Your task to perform on an android device: Open the phone app and click the voicemail tab. Image 0: 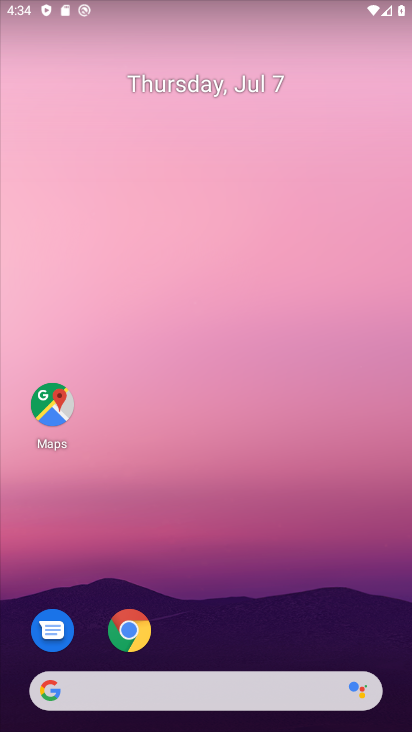
Step 0: drag from (200, 676) to (182, 175)
Your task to perform on an android device: Open the phone app and click the voicemail tab. Image 1: 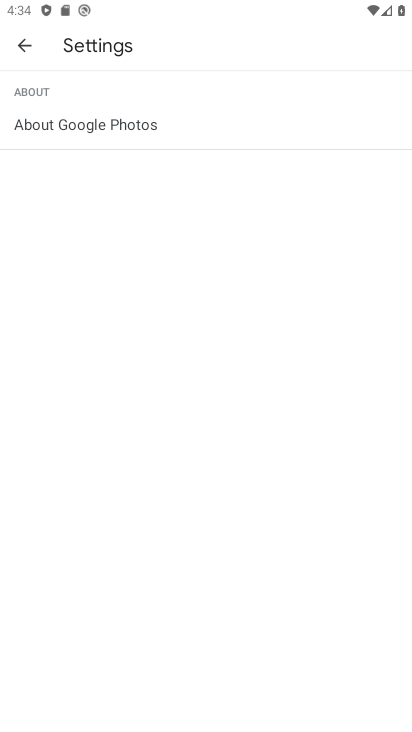
Step 1: click (20, 42)
Your task to perform on an android device: Open the phone app and click the voicemail tab. Image 2: 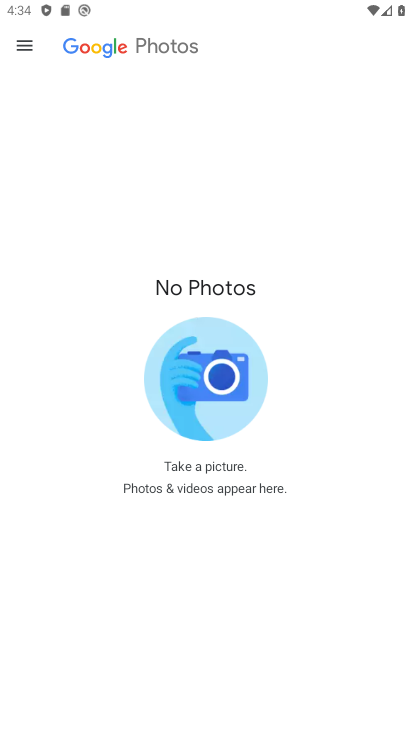
Step 2: press back button
Your task to perform on an android device: Open the phone app and click the voicemail tab. Image 3: 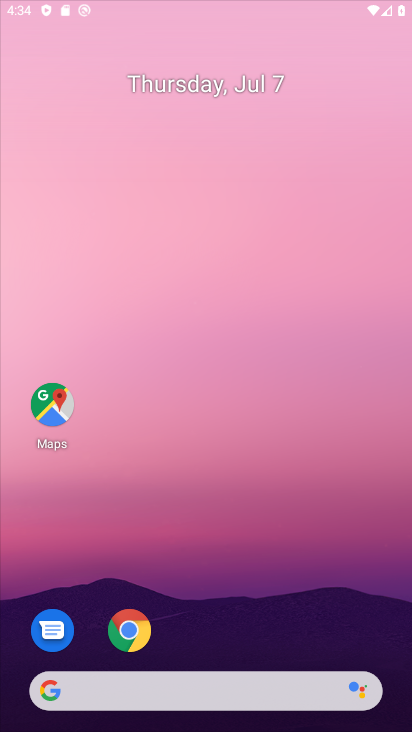
Step 3: drag from (277, 576) to (171, 0)
Your task to perform on an android device: Open the phone app and click the voicemail tab. Image 4: 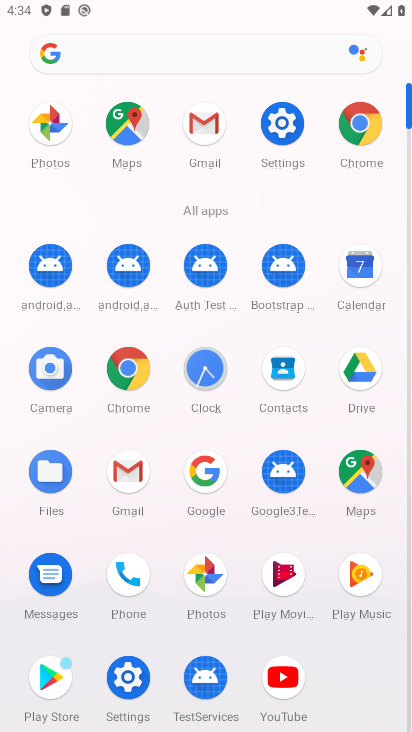
Step 4: click (142, 572)
Your task to perform on an android device: Open the phone app and click the voicemail tab. Image 5: 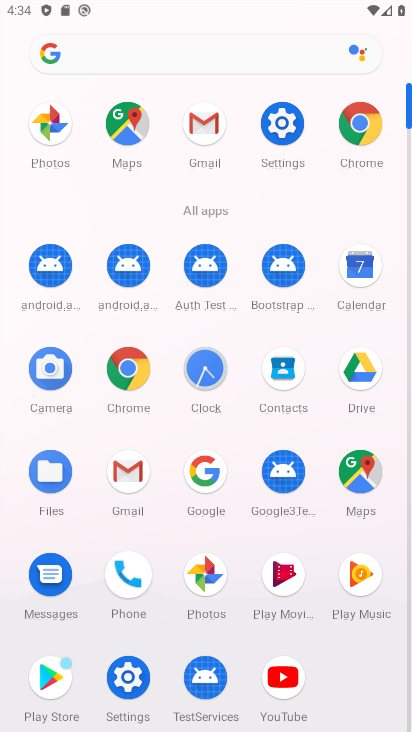
Step 5: click (133, 567)
Your task to perform on an android device: Open the phone app and click the voicemail tab. Image 6: 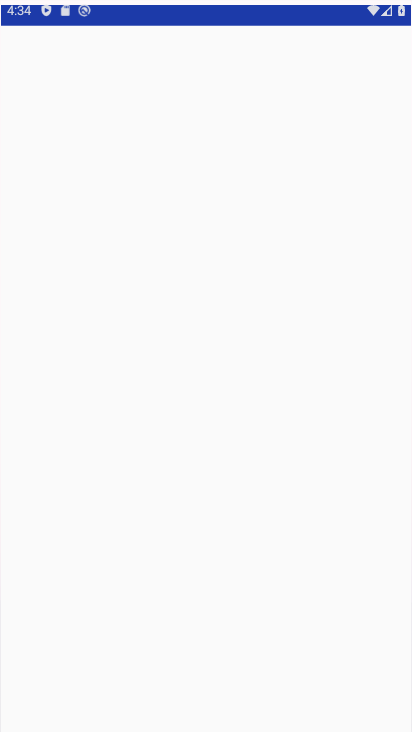
Step 6: click (133, 567)
Your task to perform on an android device: Open the phone app and click the voicemail tab. Image 7: 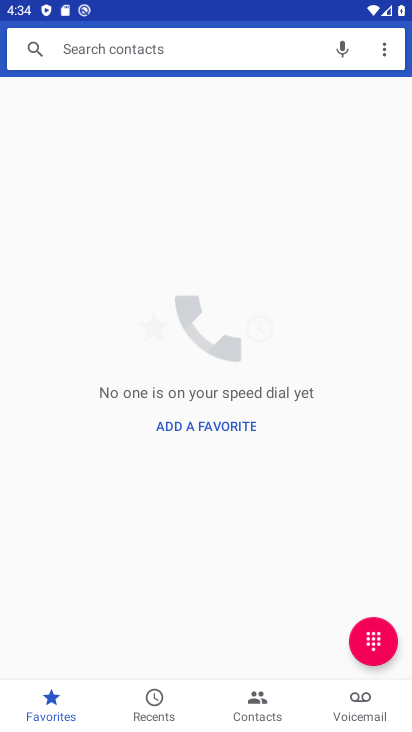
Step 7: click (368, 706)
Your task to perform on an android device: Open the phone app and click the voicemail tab. Image 8: 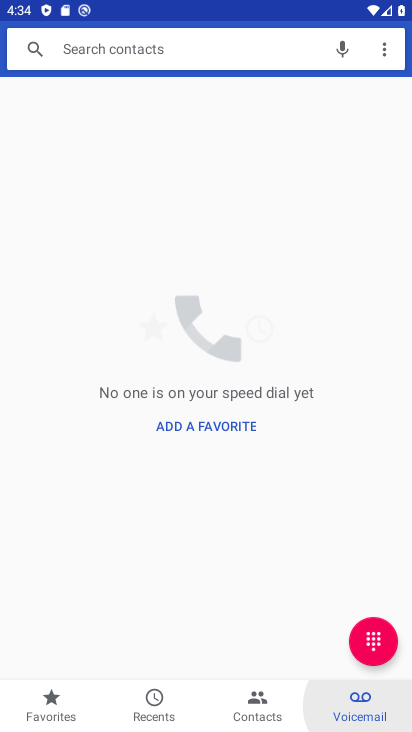
Step 8: click (366, 708)
Your task to perform on an android device: Open the phone app and click the voicemail tab. Image 9: 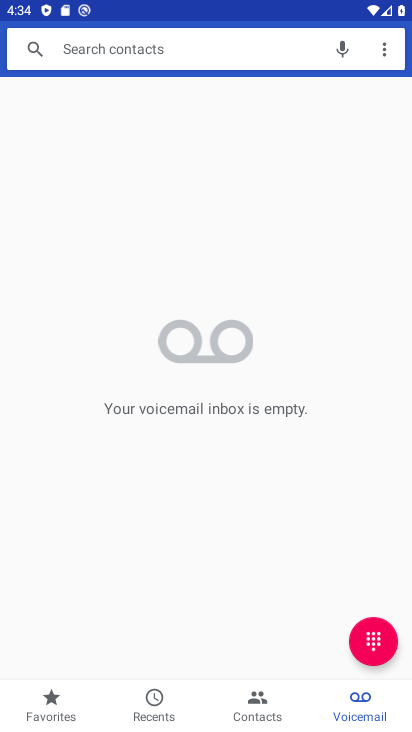
Step 9: click (371, 695)
Your task to perform on an android device: Open the phone app and click the voicemail tab. Image 10: 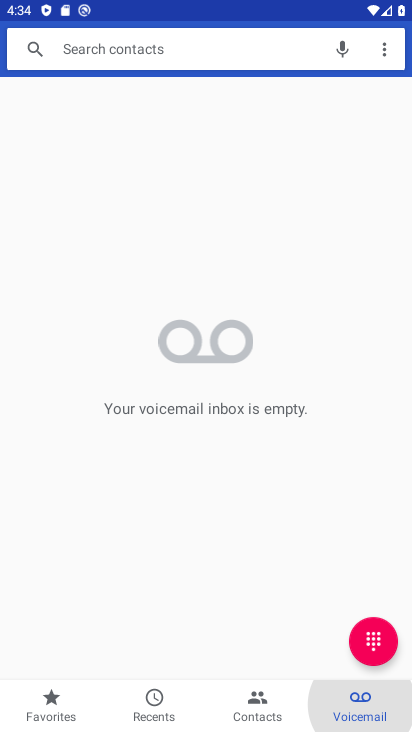
Step 10: click (370, 695)
Your task to perform on an android device: Open the phone app and click the voicemail tab. Image 11: 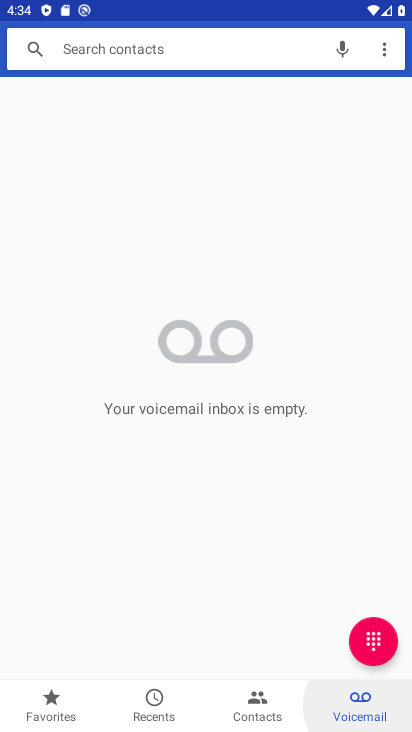
Step 11: click (369, 695)
Your task to perform on an android device: Open the phone app and click the voicemail tab. Image 12: 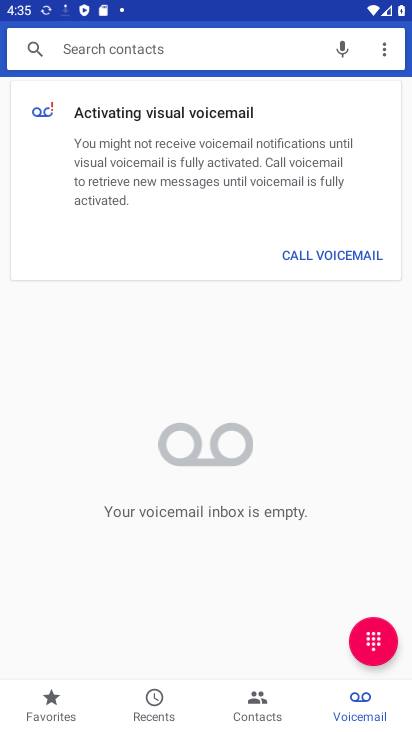
Step 12: click (349, 700)
Your task to perform on an android device: Open the phone app and click the voicemail tab. Image 13: 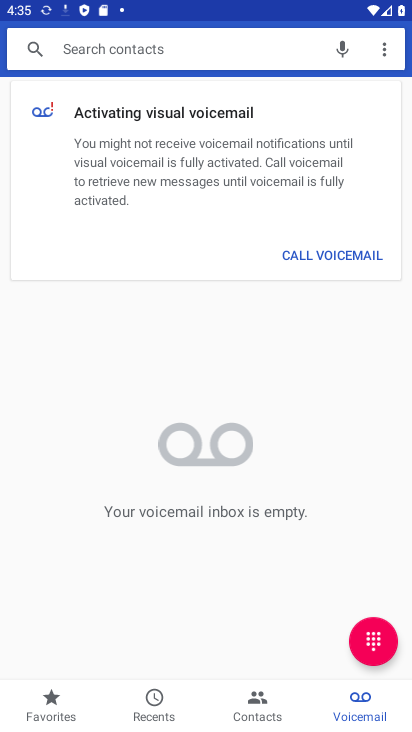
Step 13: click (352, 696)
Your task to perform on an android device: Open the phone app and click the voicemail tab. Image 14: 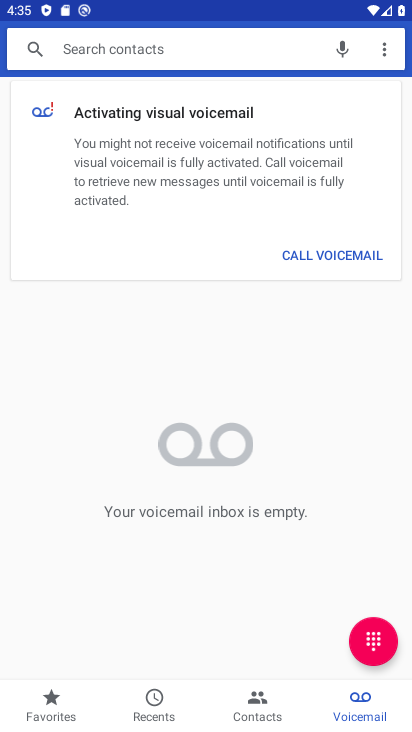
Step 14: task complete